Your task to perform on an android device: Go to battery settings Image 0: 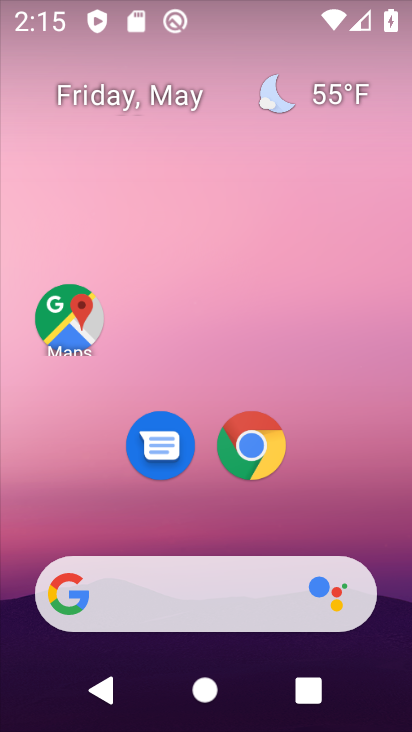
Step 0: drag from (355, 486) to (349, 114)
Your task to perform on an android device: Go to battery settings Image 1: 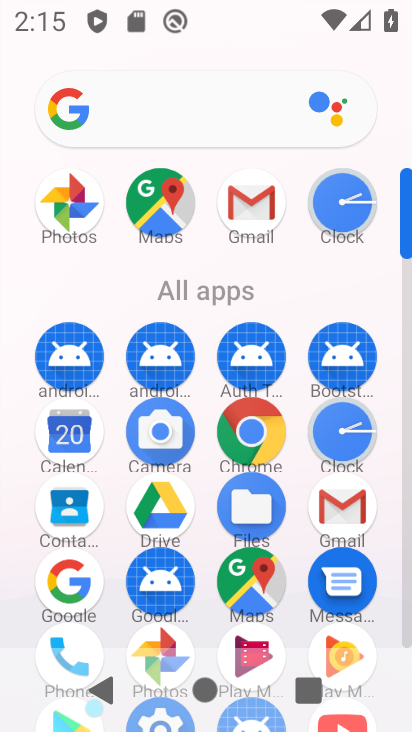
Step 1: drag from (209, 601) to (198, 316)
Your task to perform on an android device: Go to battery settings Image 2: 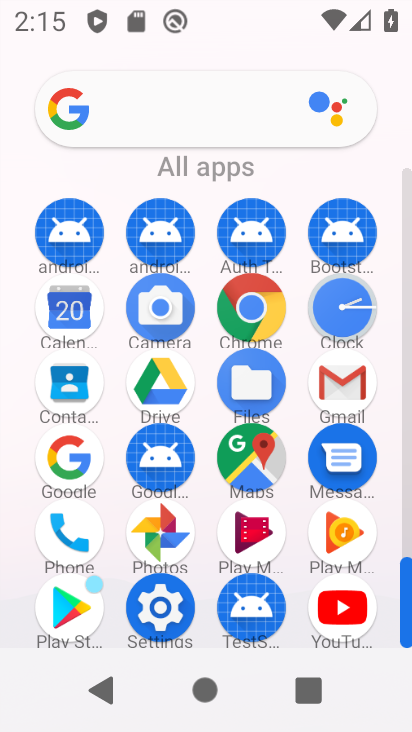
Step 2: click (158, 597)
Your task to perform on an android device: Go to battery settings Image 3: 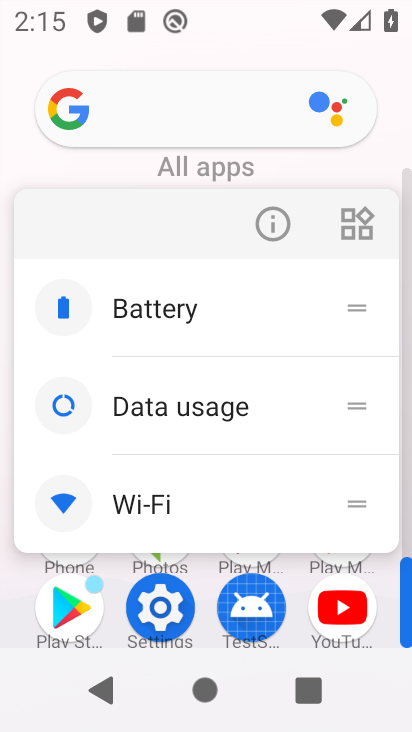
Step 3: click (159, 596)
Your task to perform on an android device: Go to battery settings Image 4: 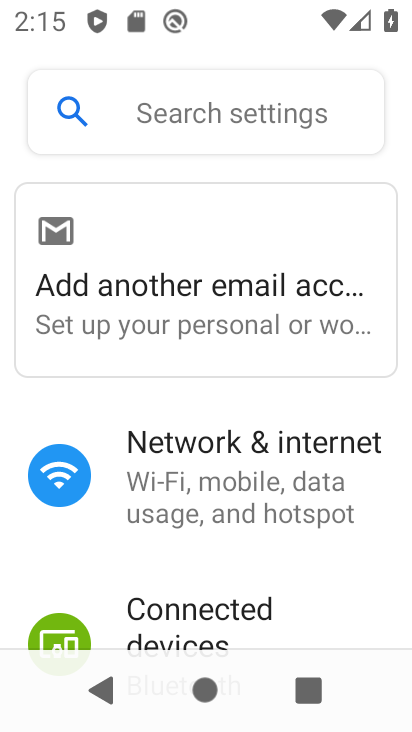
Step 4: drag from (305, 609) to (321, 165)
Your task to perform on an android device: Go to battery settings Image 5: 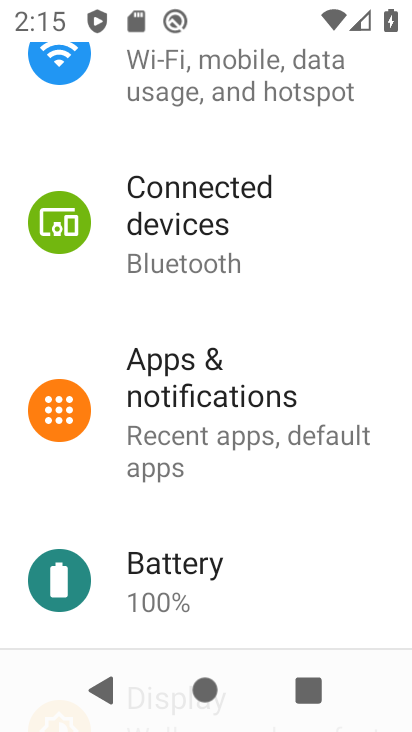
Step 5: click (195, 554)
Your task to perform on an android device: Go to battery settings Image 6: 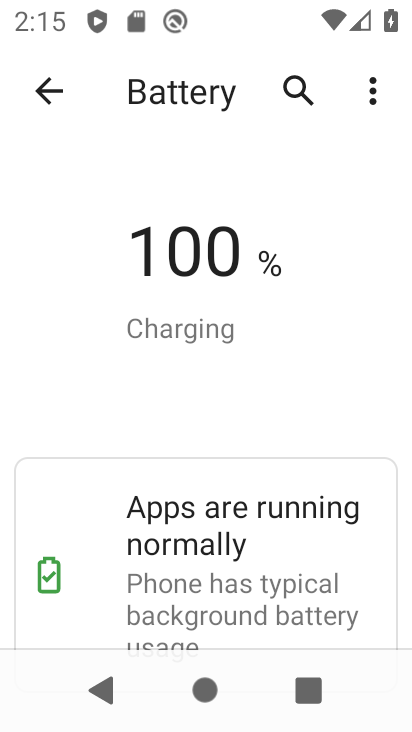
Step 6: task complete